Your task to perform on an android device: turn on data saver in the chrome app Image 0: 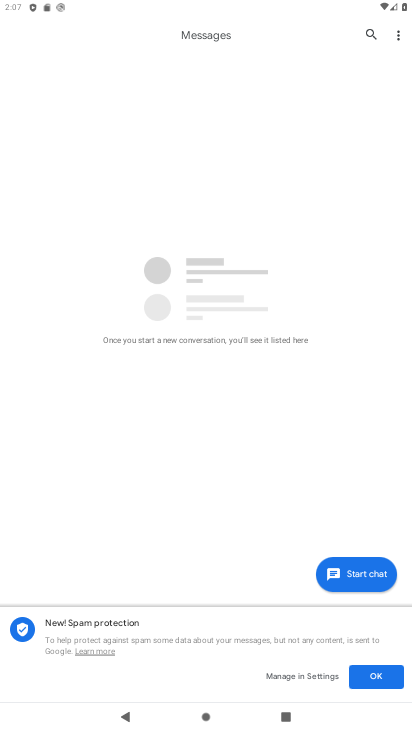
Step 0: press home button
Your task to perform on an android device: turn on data saver in the chrome app Image 1: 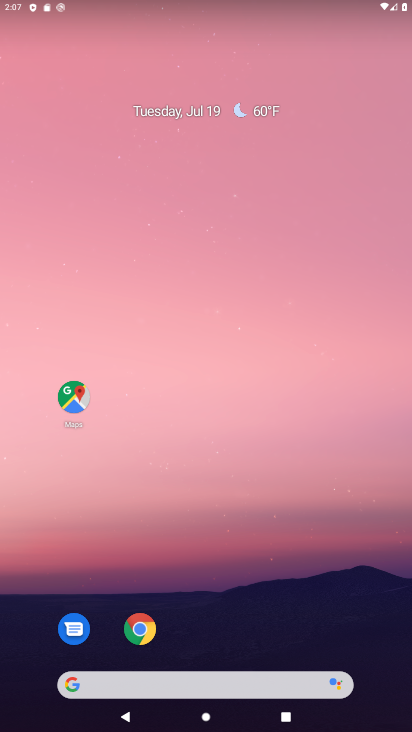
Step 1: drag from (202, 602) to (217, 493)
Your task to perform on an android device: turn on data saver in the chrome app Image 2: 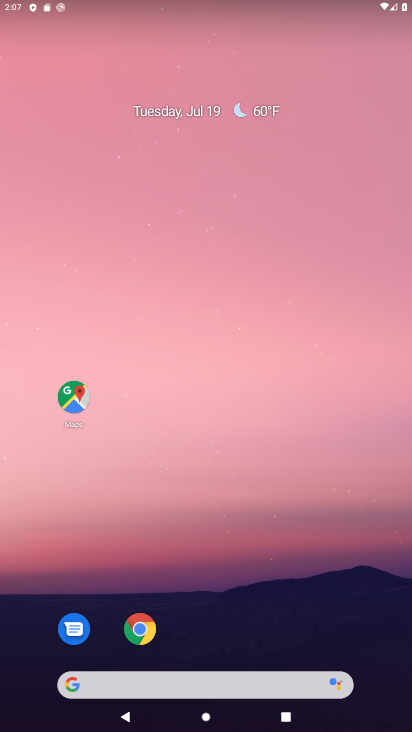
Step 2: click (128, 632)
Your task to perform on an android device: turn on data saver in the chrome app Image 3: 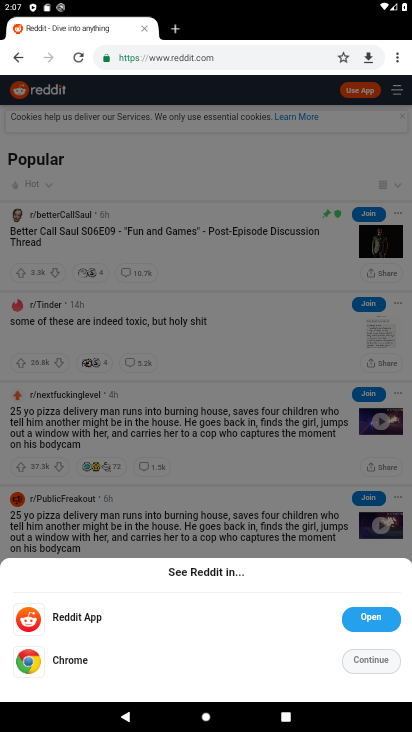
Step 3: click (391, 53)
Your task to perform on an android device: turn on data saver in the chrome app Image 4: 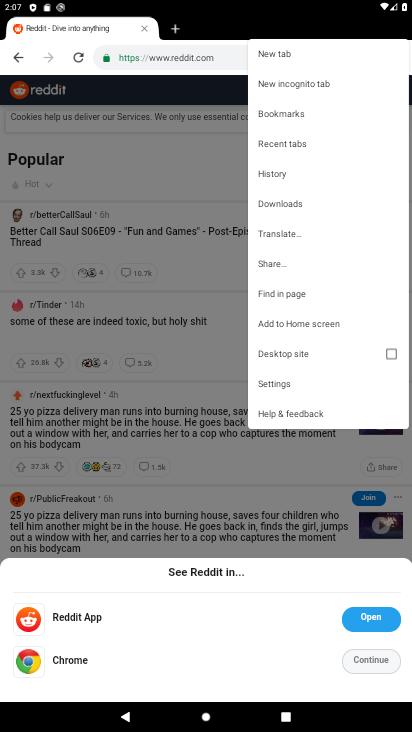
Step 4: click (294, 387)
Your task to perform on an android device: turn on data saver in the chrome app Image 5: 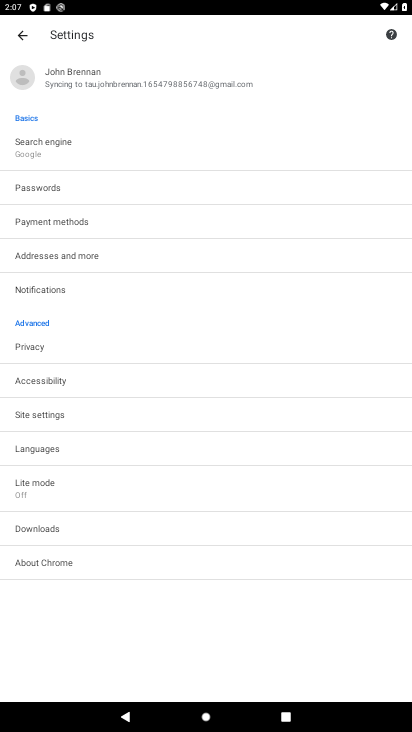
Step 5: click (54, 491)
Your task to perform on an android device: turn on data saver in the chrome app Image 6: 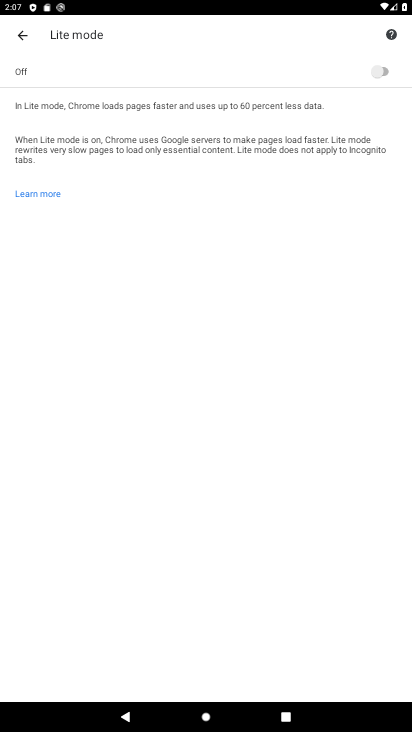
Step 6: click (380, 70)
Your task to perform on an android device: turn on data saver in the chrome app Image 7: 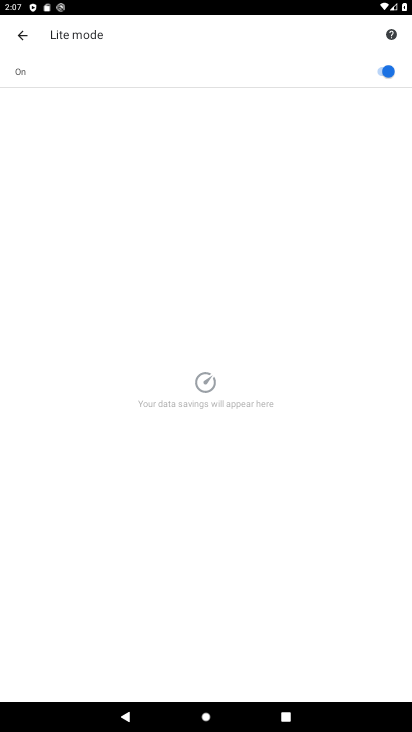
Step 7: task complete